Your task to perform on an android device: Open calendar and show me the third week of next month Image 0: 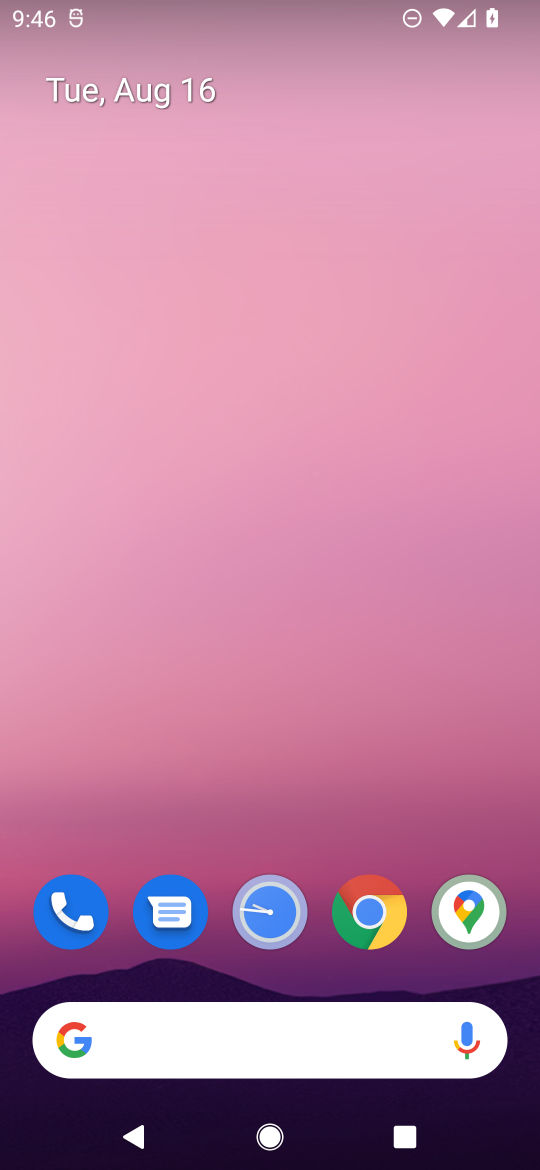
Step 0: click (139, 115)
Your task to perform on an android device: Open calendar and show me the third week of next month Image 1: 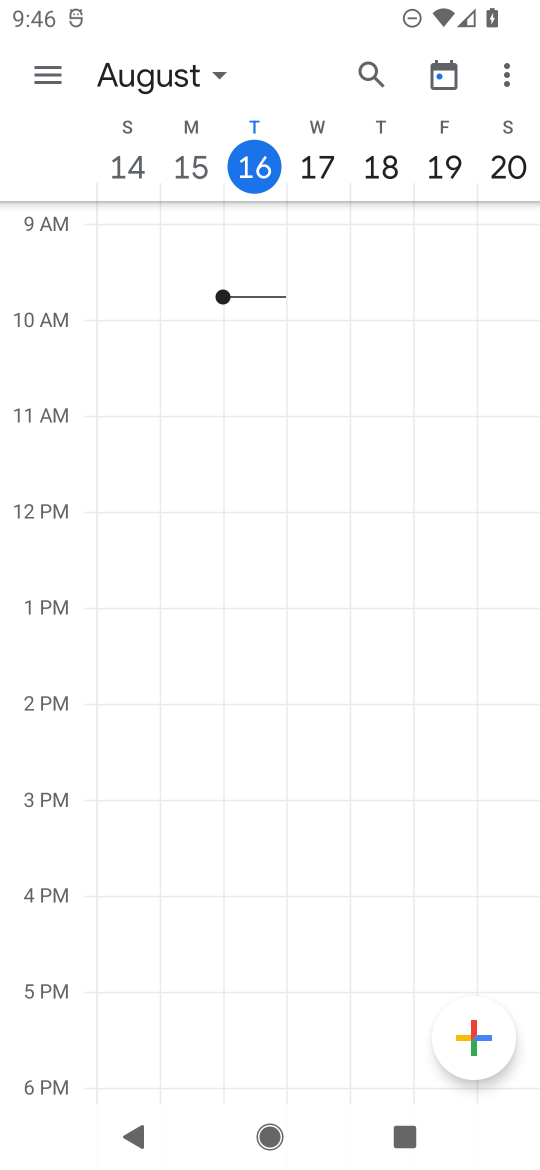
Step 1: click (171, 89)
Your task to perform on an android device: Open calendar and show me the third week of next month Image 2: 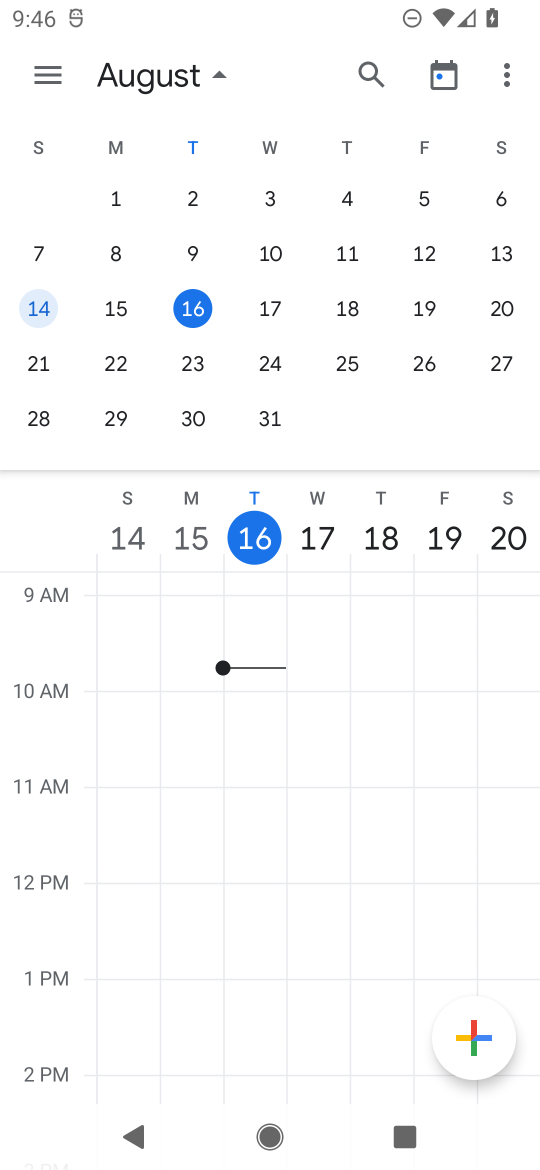
Step 2: drag from (464, 420) to (58, 253)
Your task to perform on an android device: Open calendar and show me the third week of next month Image 3: 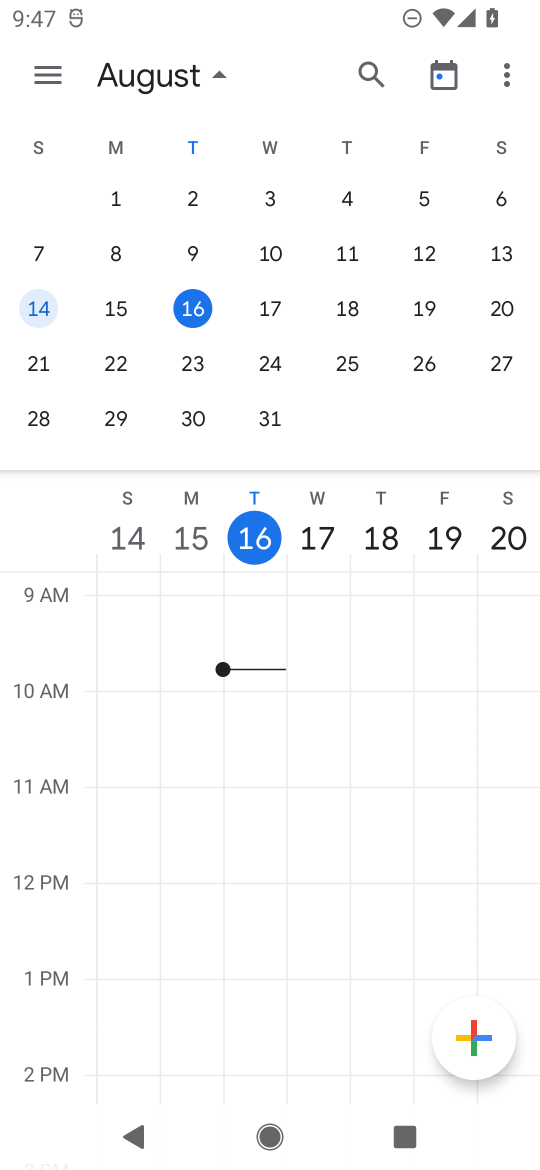
Step 3: drag from (489, 420) to (70, 99)
Your task to perform on an android device: Open calendar and show me the third week of next month Image 4: 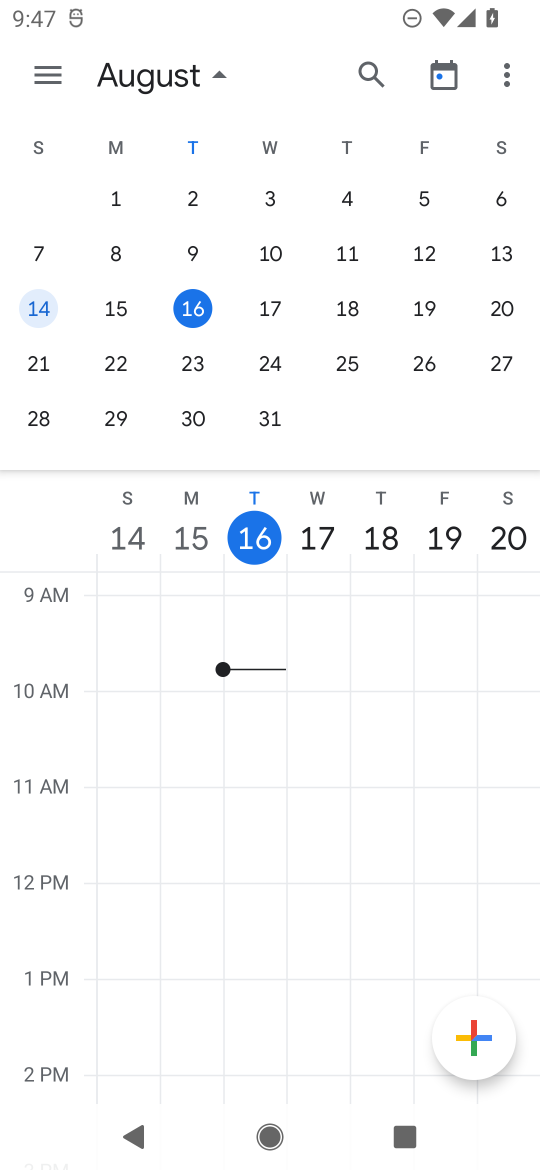
Step 4: drag from (520, 393) to (40, 169)
Your task to perform on an android device: Open calendar and show me the third week of next month Image 5: 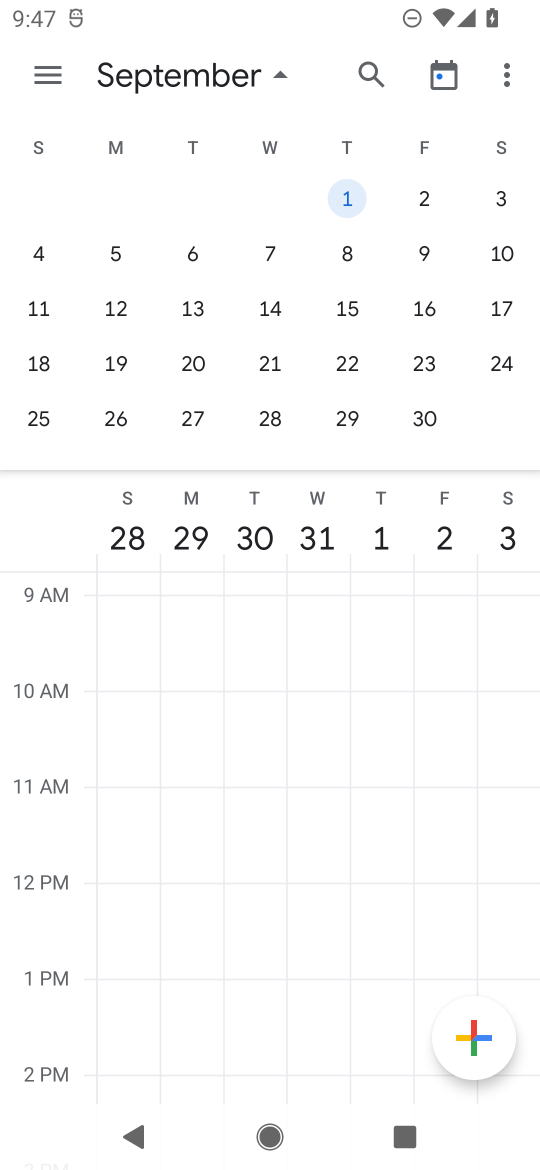
Step 5: click (350, 321)
Your task to perform on an android device: Open calendar and show me the third week of next month Image 6: 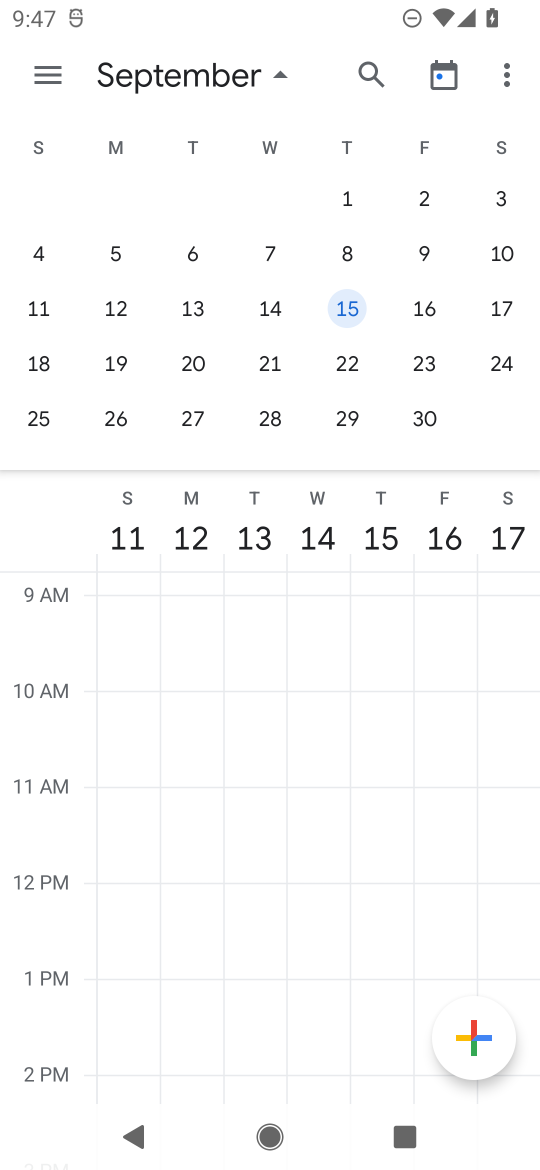
Step 6: task complete